Your task to perform on an android device: allow cookies in the chrome app Image 0: 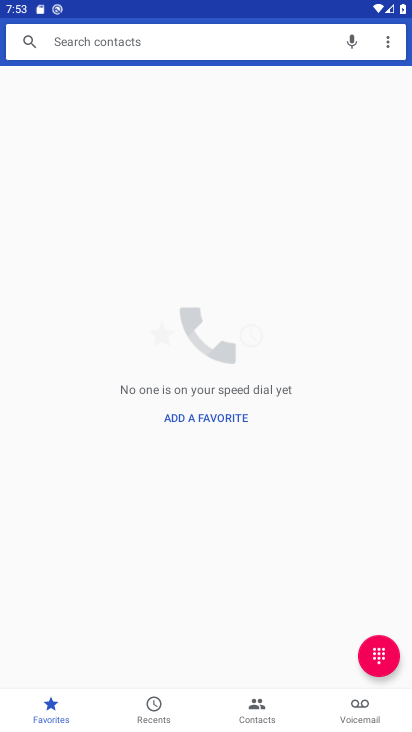
Step 0: press home button
Your task to perform on an android device: allow cookies in the chrome app Image 1: 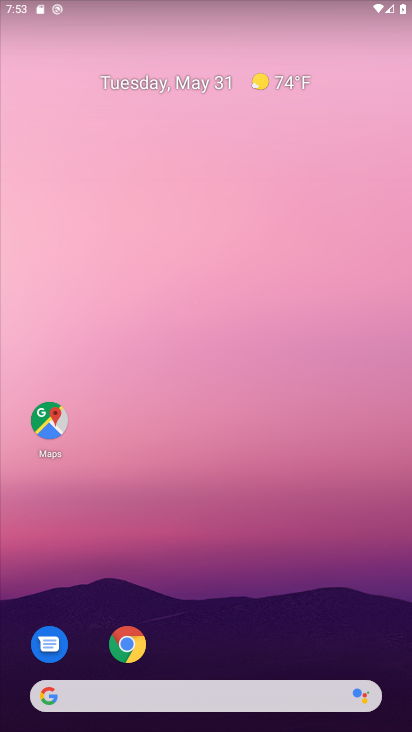
Step 1: click (118, 648)
Your task to perform on an android device: allow cookies in the chrome app Image 2: 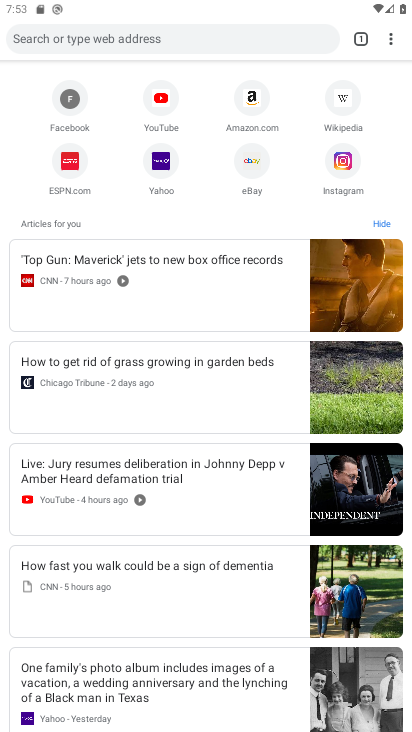
Step 2: click (389, 40)
Your task to perform on an android device: allow cookies in the chrome app Image 3: 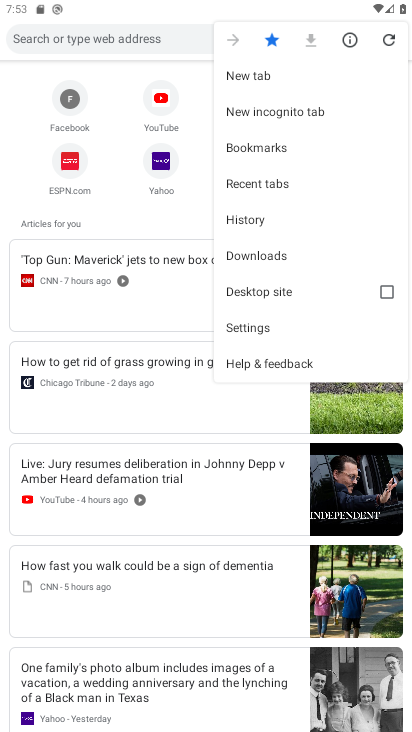
Step 3: click (290, 328)
Your task to perform on an android device: allow cookies in the chrome app Image 4: 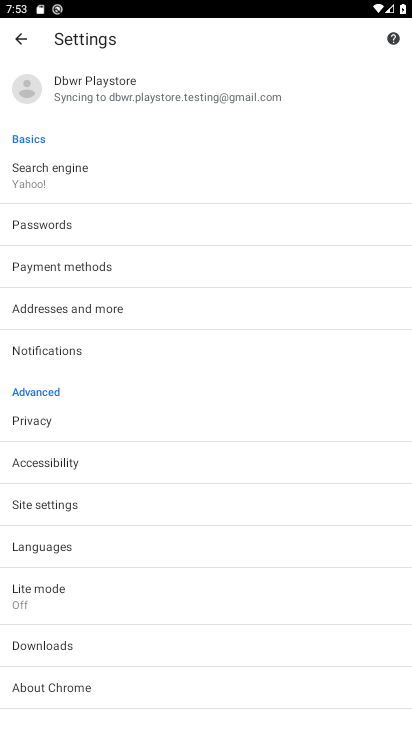
Step 4: click (93, 504)
Your task to perform on an android device: allow cookies in the chrome app Image 5: 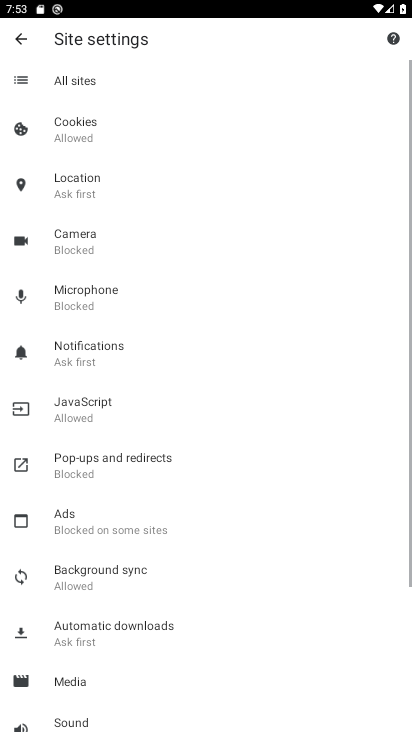
Step 5: click (107, 128)
Your task to perform on an android device: allow cookies in the chrome app Image 6: 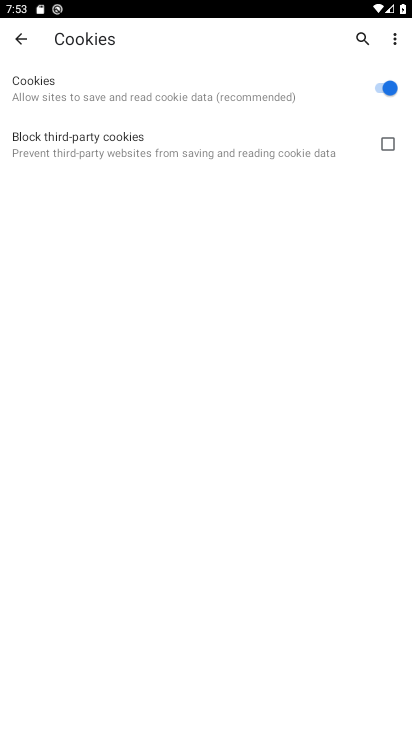
Step 6: task complete